Your task to perform on an android device: turn off priority inbox in the gmail app Image 0: 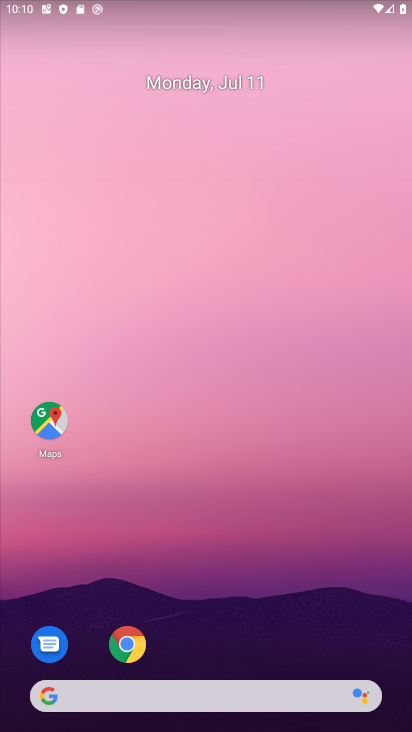
Step 0: drag from (203, 649) to (262, 5)
Your task to perform on an android device: turn off priority inbox in the gmail app Image 1: 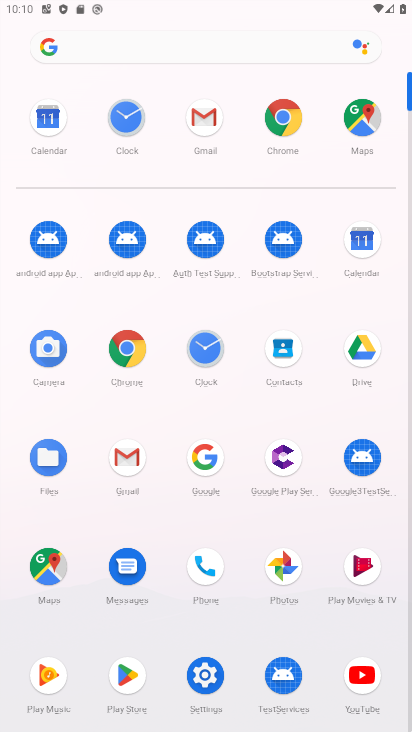
Step 1: click (128, 454)
Your task to perform on an android device: turn off priority inbox in the gmail app Image 2: 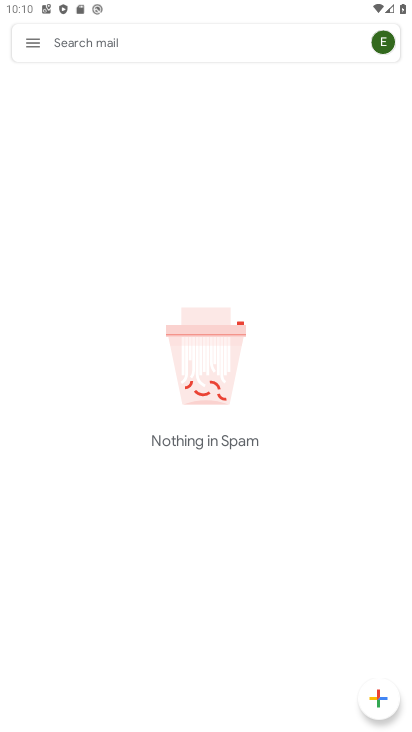
Step 2: click (31, 42)
Your task to perform on an android device: turn off priority inbox in the gmail app Image 3: 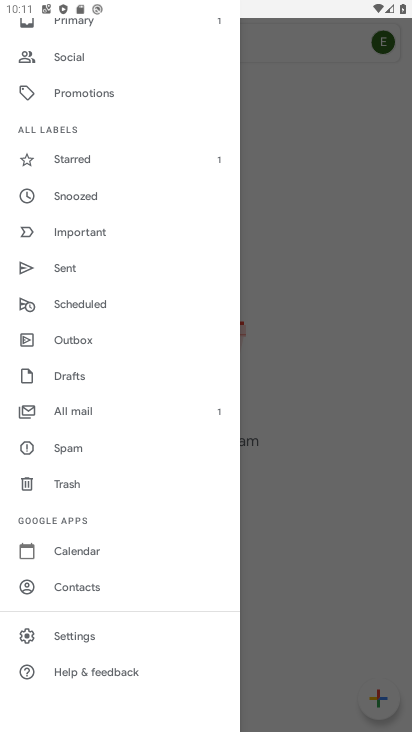
Step 3: click (94, 631)
Your task to perform on an android device: turn off priority inbox in the gmail app Image 4: 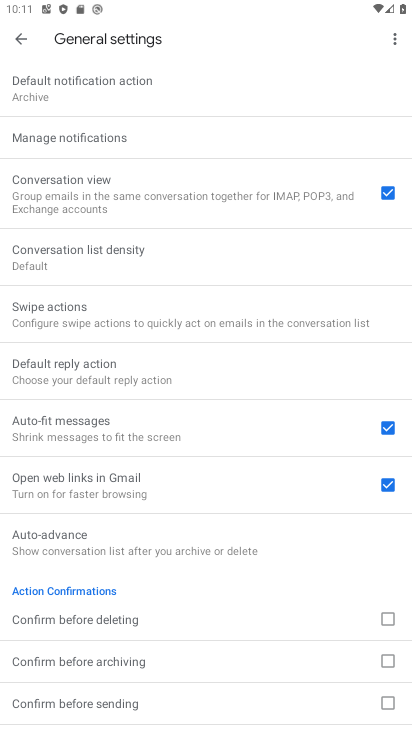
Step 4: click (20, 37)
Your task to perform on an android device: turn off priority inbox in the gmail app Image 5: 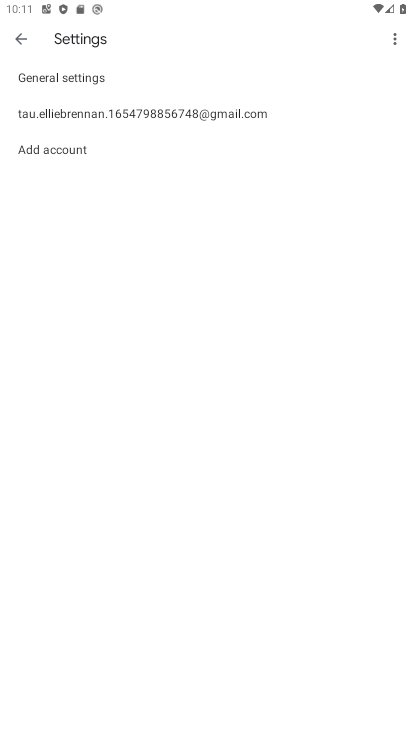
Step 5: click (101, 111)
Your task to perform on an android device: turn off priority inbox in the gmail app Image 6: 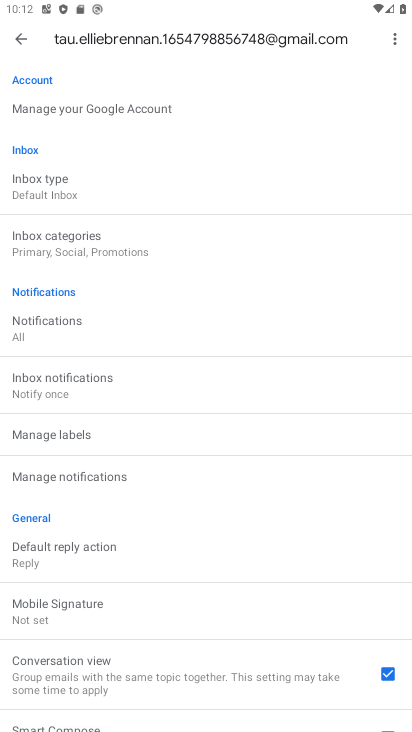
Step 6: click (88, 187)
Your task to perform on an android device: turn off priority inbox in the gmail app Image 7: 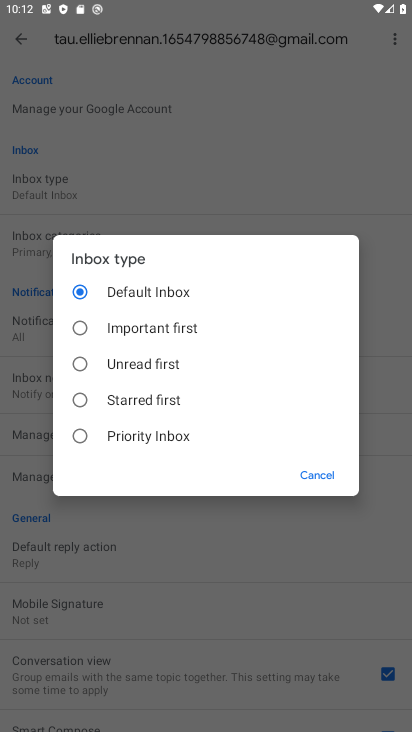
Step 7: click (81, 399)
Your task to perform on an android device: turn off priority inbox in the gmail app Image 8: 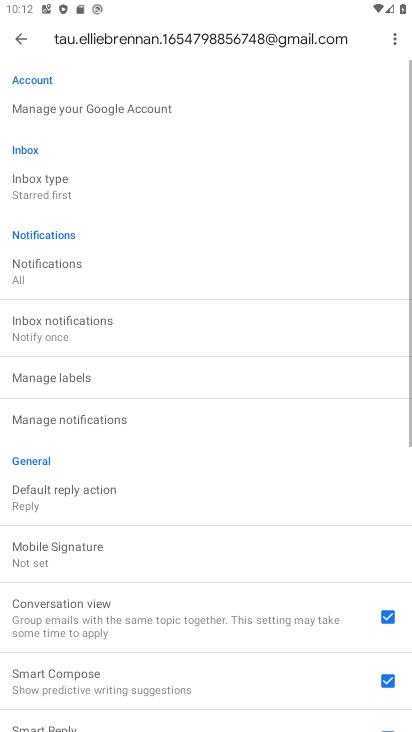
Step 8: task complete